Your task to perform on an android device: Go to privacy settings Image 0: 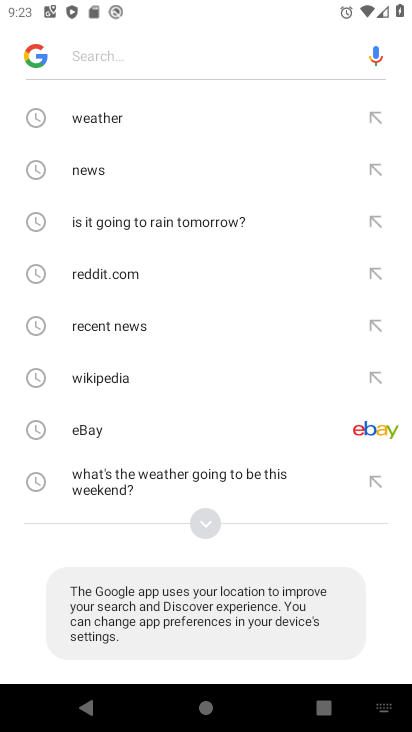
Step 0: press home button
Your task to perform on an android device: Go to privacy settings Image 1: 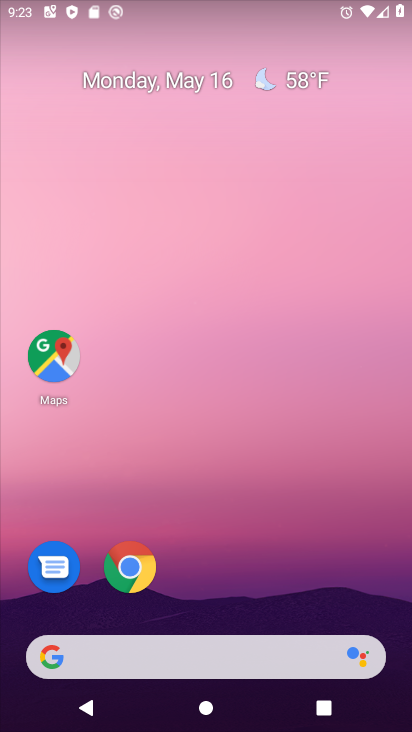
Step 1: drag from (267, 512) to (255, 245)
Your task to perform on an android device: Go to privacy settings Image 2: 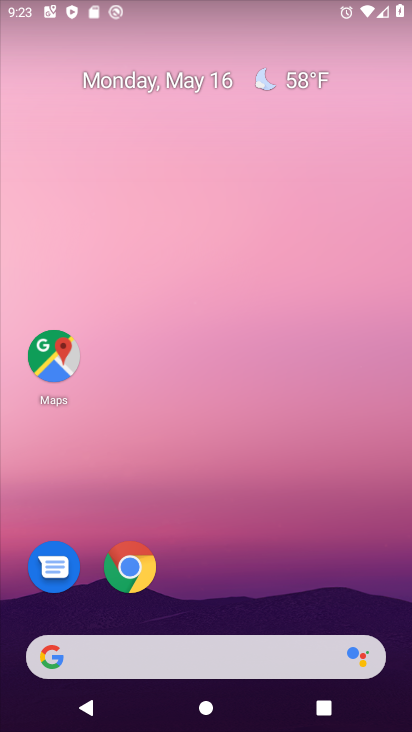
Step 2: drag from (280, 573) to (269, 181)
Your task to perform on an android device: Go to privacy settings Image 3: 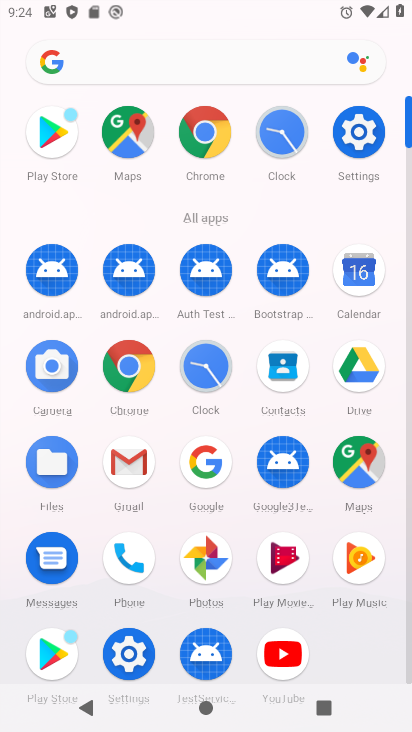
Step 3: click (351, 127)
Your task to perform on an android device: Go to privacy settings Image 4: 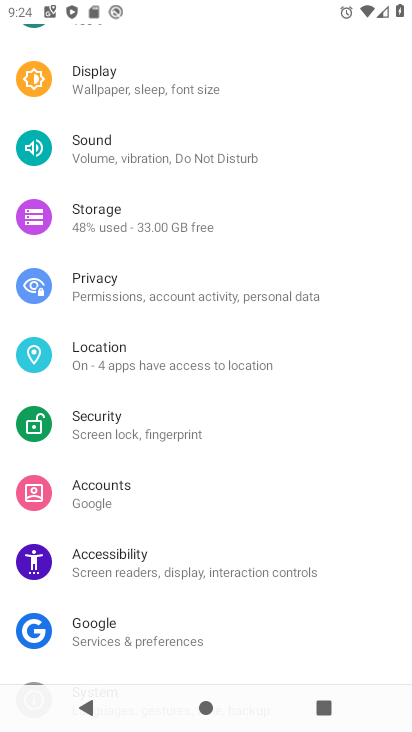
Step 4: click (108, 284)
Your task to perform on an android device: Go to privacy settings Image 5: 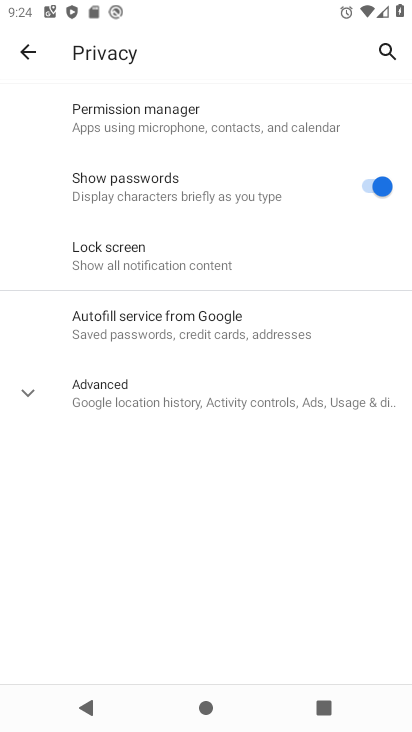
Step 5: task complete